Your task to perform on an android device: Open the calendar app, open the side menu, and click the "Day" option Image 0: 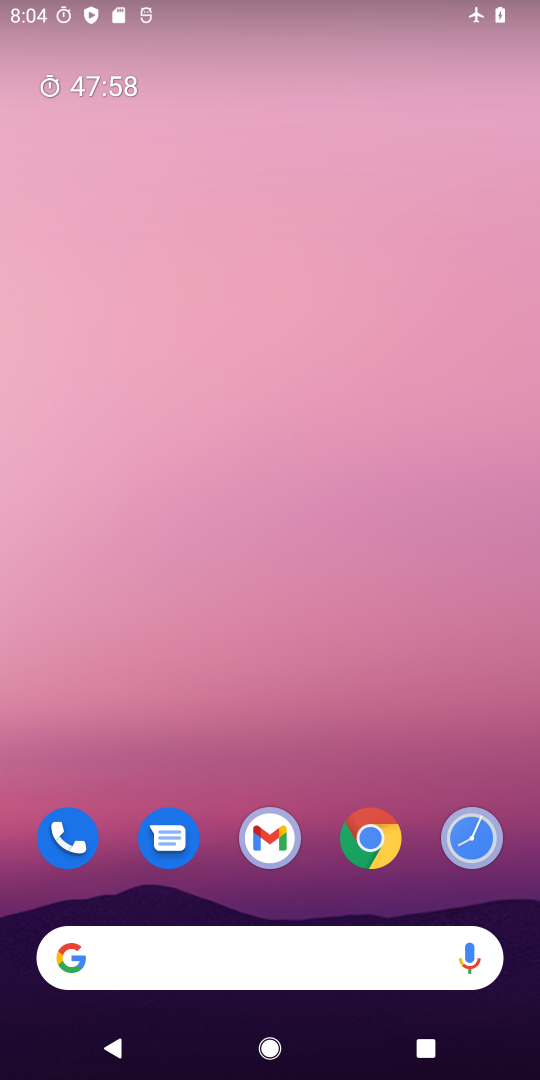
Step 0: drag from (348, 922) to (15, 626)
Your task to perform on an android device: Open the calendar app, open the side menu, and click the "Day" option Image 1: 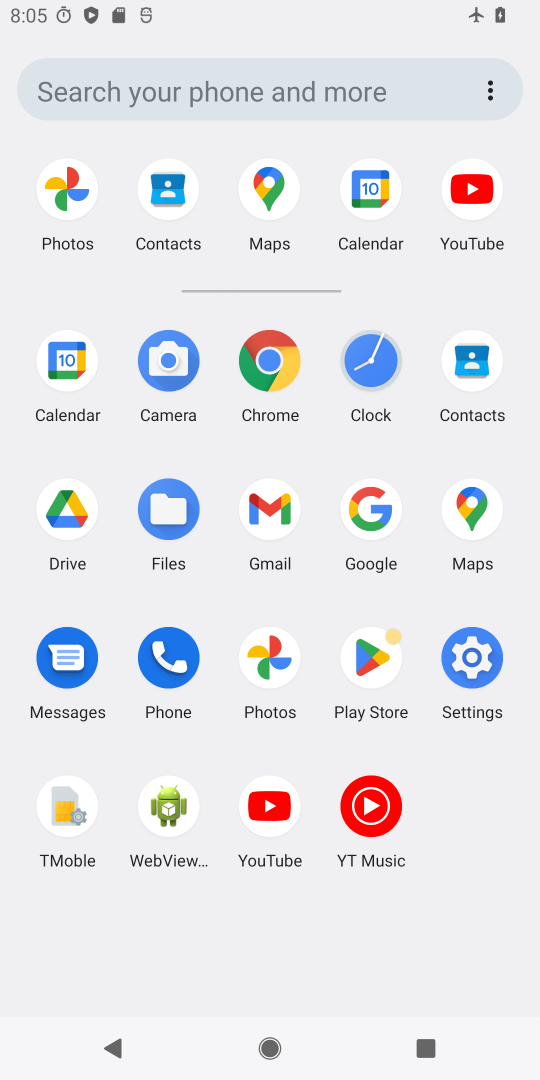
Step 1: click (60, 366)
Your task to perform on an android device: Open the calendar app, open the side menu, and click the "Day" option Image 2: 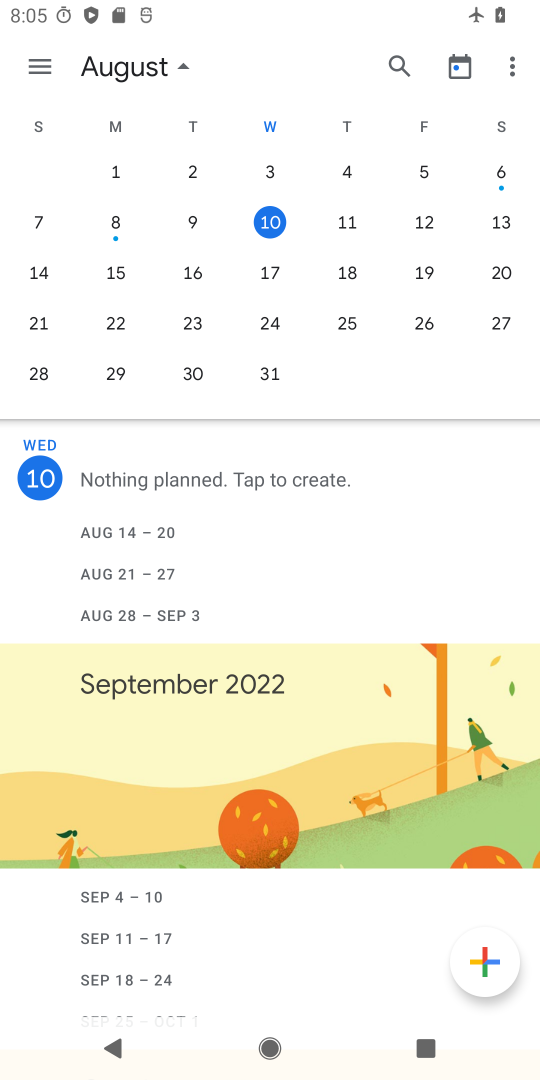
Step 2: click (33, 76)
Your task to perform on an android device: Open the calendar app, open the side menu, and click the "Day" option Image 3: 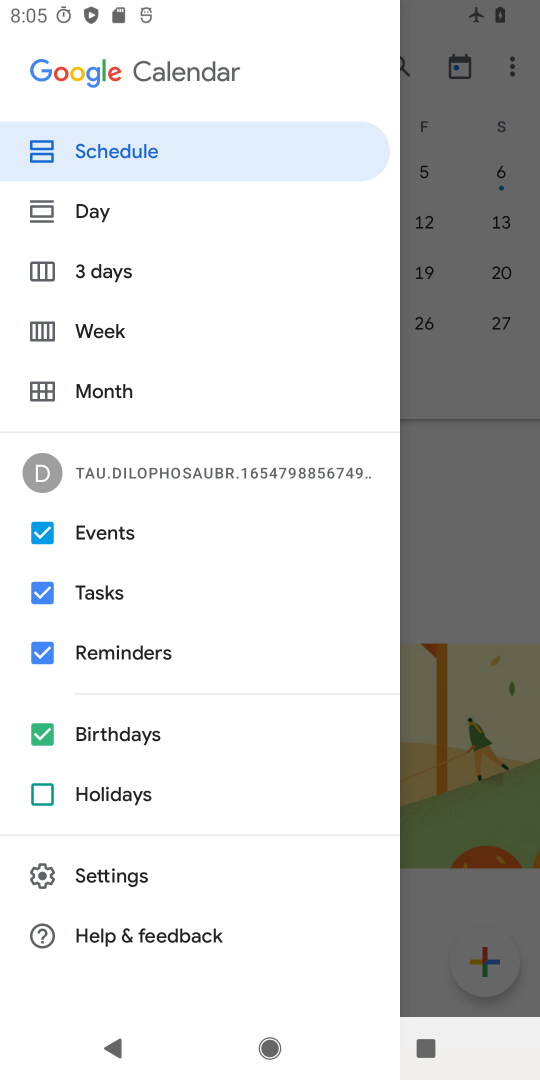
Step 3: click (53, 195)
Your task to perform on an android device: Open the calendar app, open the side menu, and click the "Day" option Image 4: 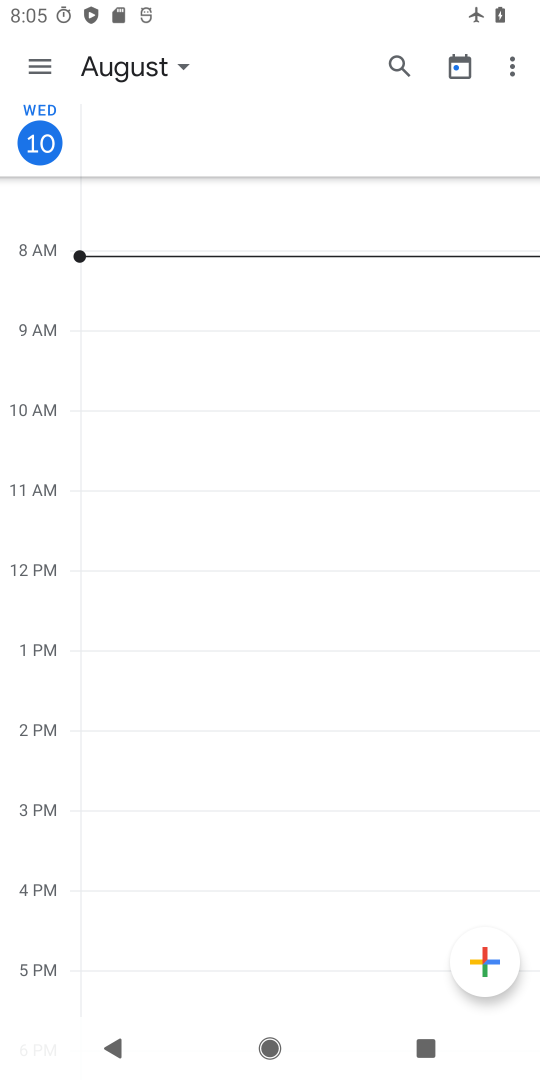
Step 4: task complete